Your task to perform on an android device: Open notification settings Image 0: 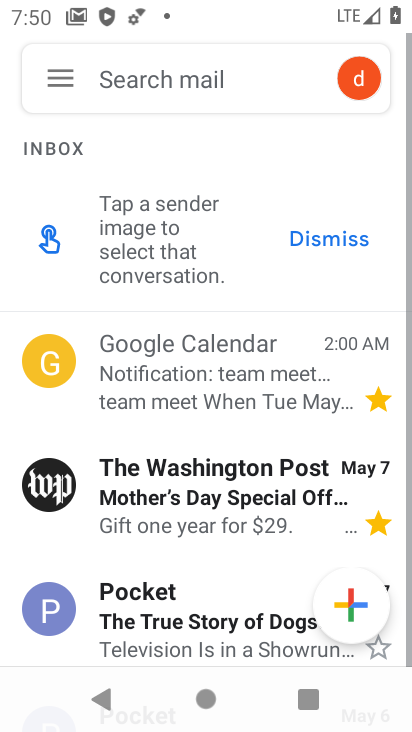
Step 0: press home button
Your task to perform on an android device: Open notification settings Image 1: 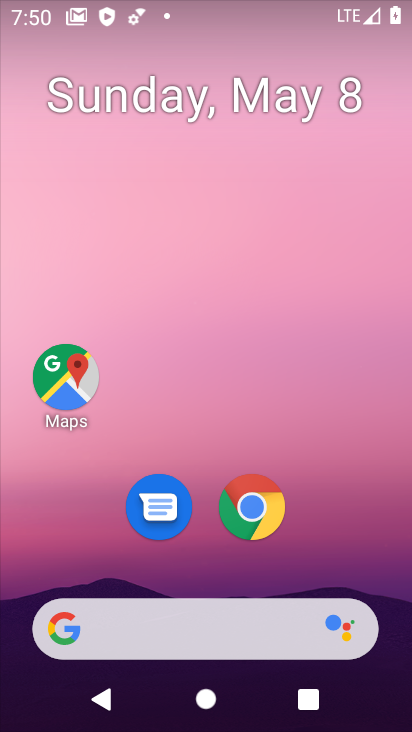
Step 1: drag from (250, 642) to (231, 225)
Your task to perform on an android device: Open notification settings Image 2: 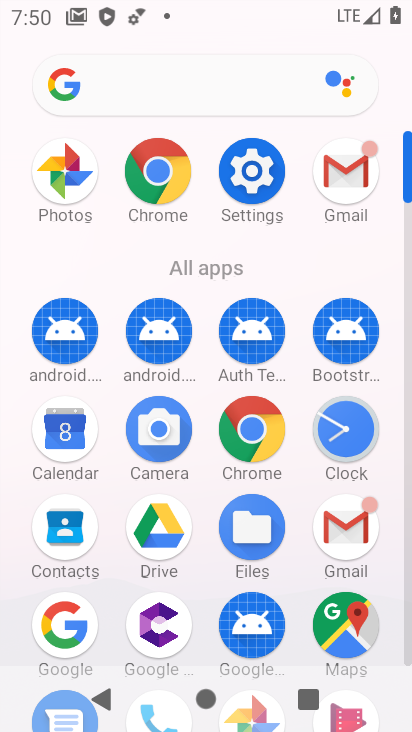
Step 2: click (257, 175)
Your task to perform on an android device: Open notification settings Image 3: 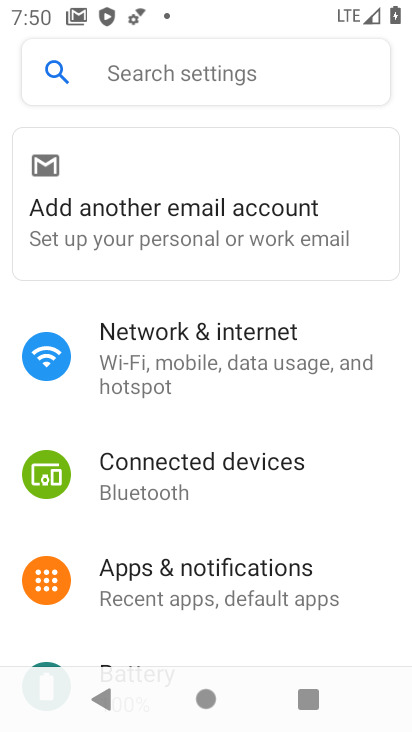
Step 3: click (225, 586)
Your task to perform on an android device: Open notification settings Image 4: 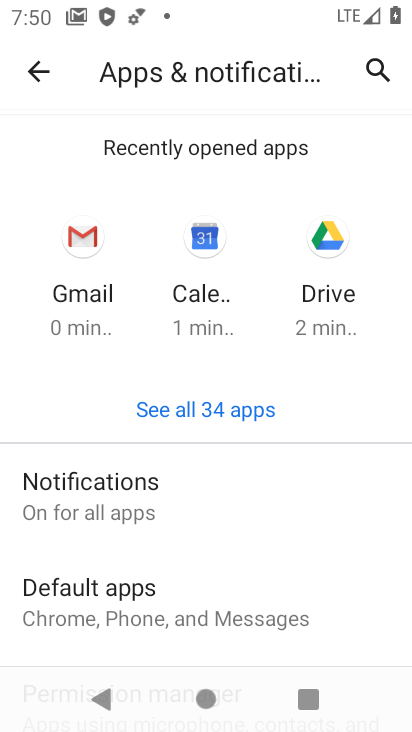
Step 4: task complete